Your task to perform on an android device: When is my next appointment? Image 0: 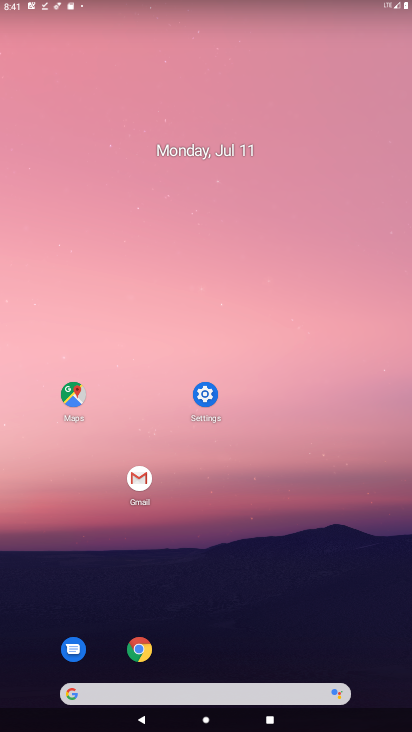
Step 0: drag from (408, 721) to (409, 121)
Your task to perform on an android device: When is my next appointment? Image 1: 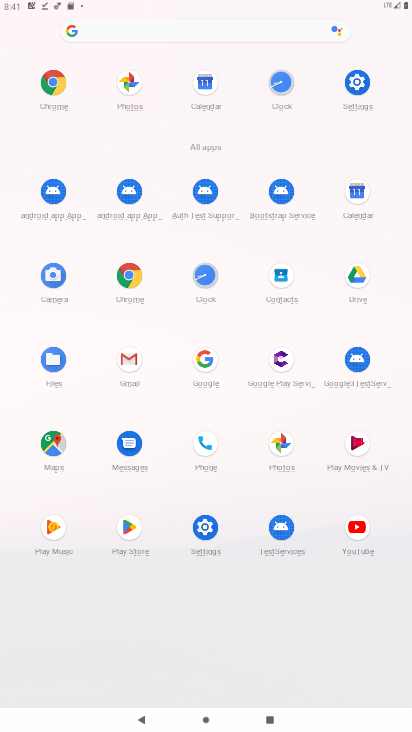
Step 1: click (357, 195)
Your task to perform on an android device: When is my next appointment? Image 2: 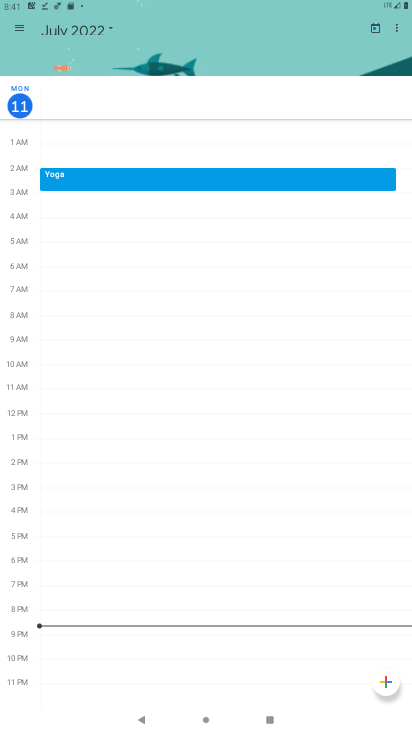
Step 2: click (19, 31)
Your task to perform on an android device: When is my next appointment? Image 3: 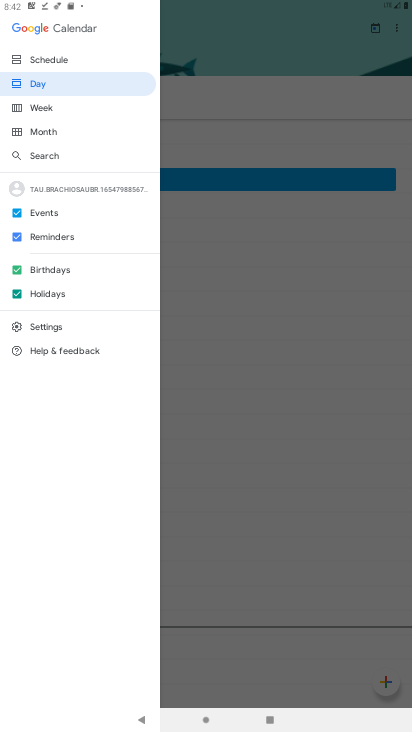
Step 3: click (12, 290)
Your task to perform on an android device: When is my next appointment? Image 4: 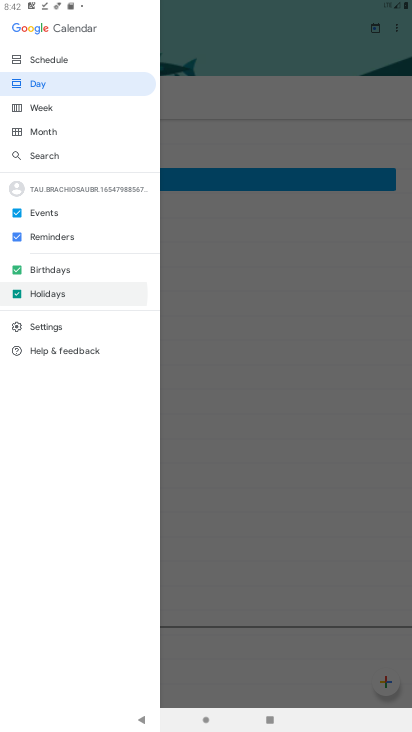
Step 4: click (15, 269)
Your task to perform on an android device: When is my next appointment? Image 5: 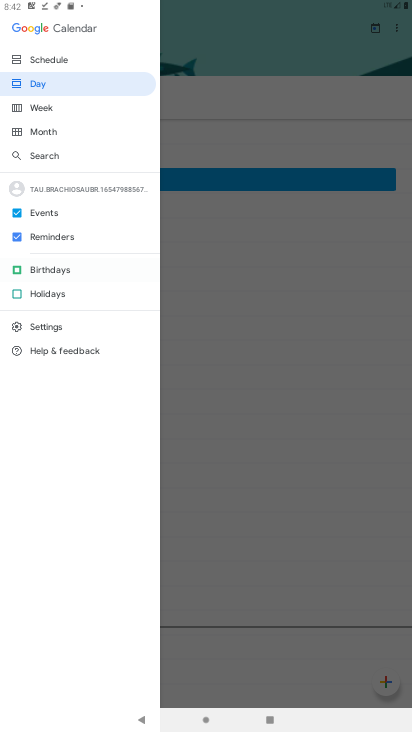
Step 5: click (20, 235)
Your task to perform on an android device: When is my next appointment? Image 6: 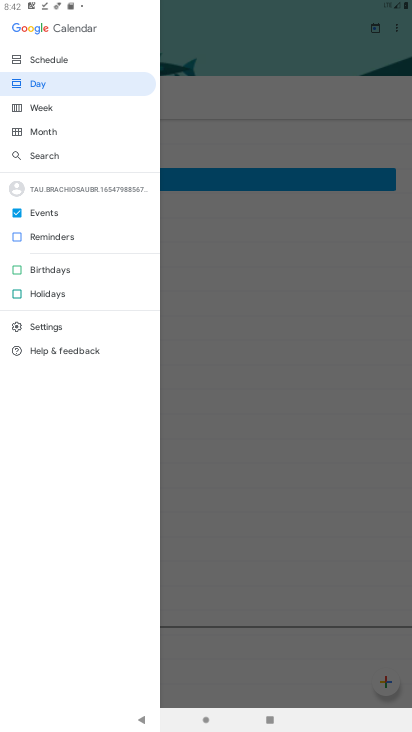
Step 6: click (59, 60)
Your task to perform on an android device: When is my next appointment? Image 7: 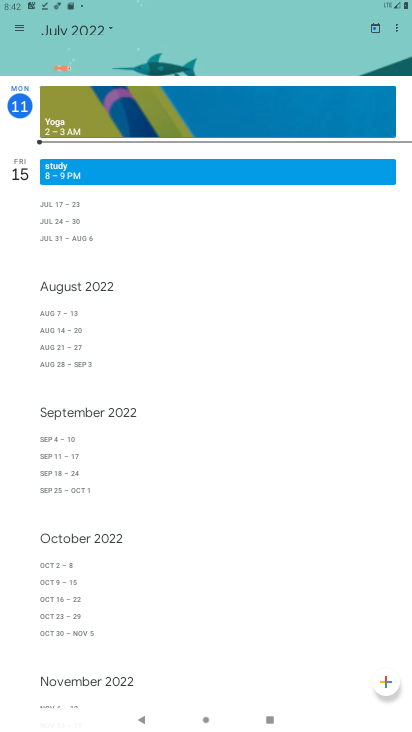
Step 7: task complete